Your task to perform on an android device: Go to sound settings Image 0: 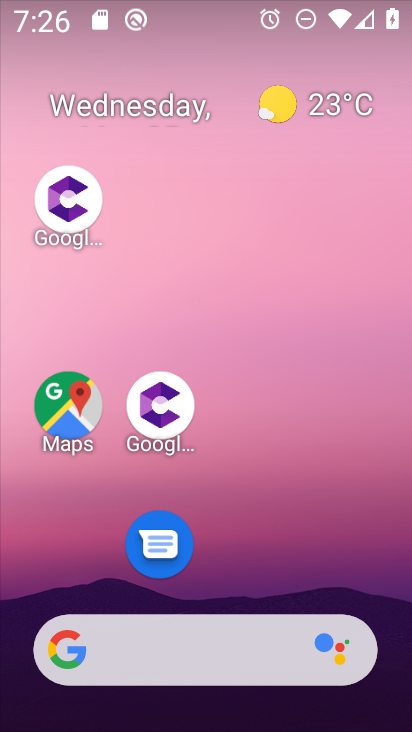
Step 0: drag from (268, 501) to (206, 114)
Your task to perform on an android device: Go to sound settings Image 1: 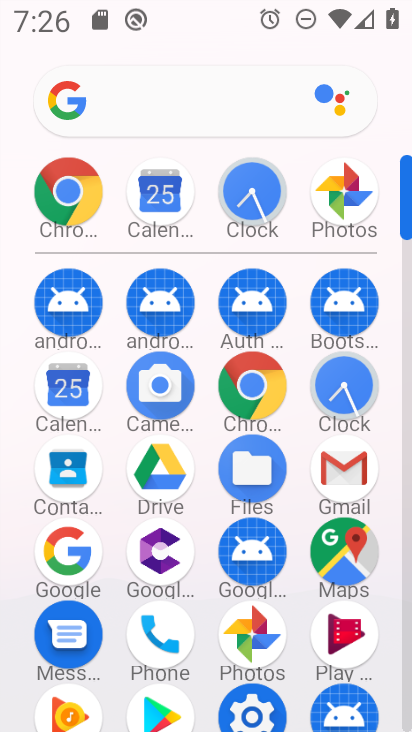
Step 1: click (248, 713)
Your task to perform on an android device: Go to sound settings Image 2: 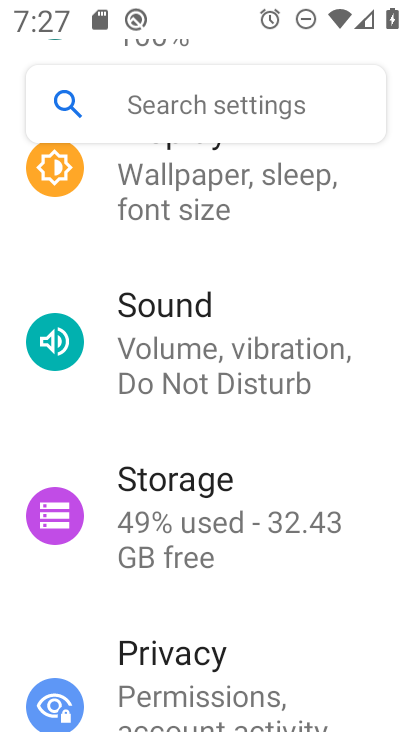
Step 2: drag from (242, 585) to (203, 175)
Your task to perform on an android device: Go to sound settings Image 3: 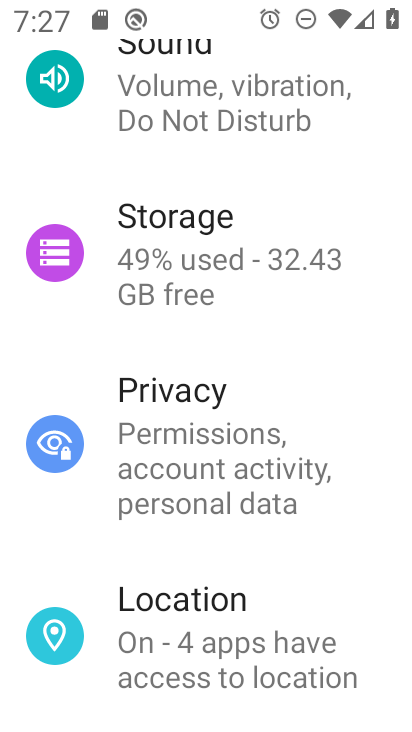
Step 3: drag from (207, 559) to (153, 189)
Your task to perform on an android device: Go to sound settings Image 4: 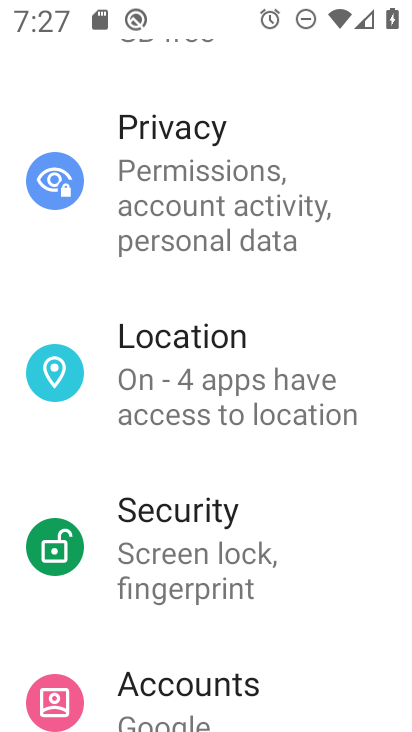
Step 4: drag from (179, 605) to (151, 312)
Your task to perform on an android device: Go to sound settings Image 5: 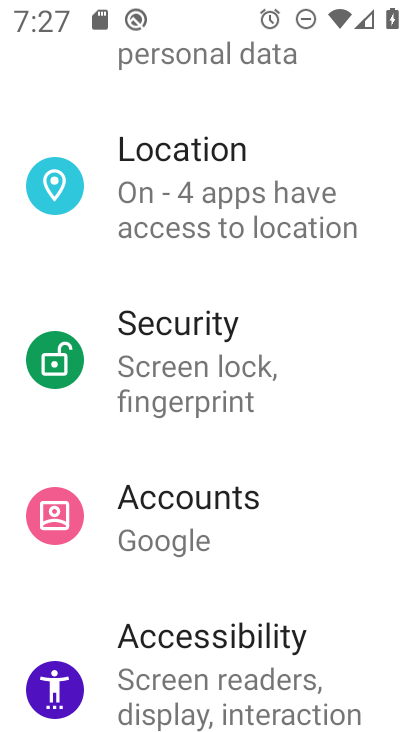
Step 5: drag from (291, 293) to (379, 724)
Your task to perform on an android device: Go to sound settings Image 6: 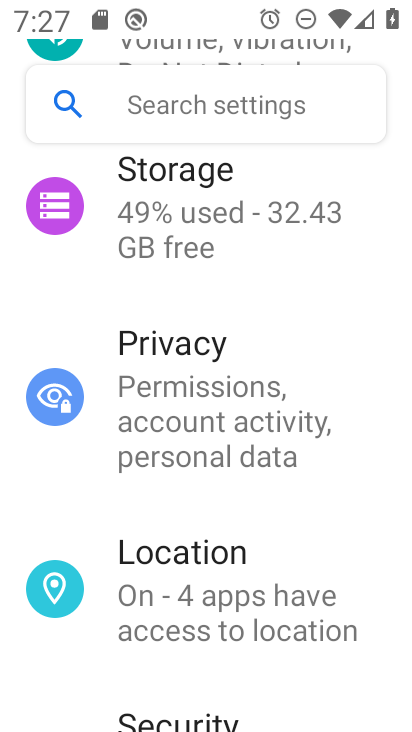
Step 6: drag from (247, 294) to (210, 724)
Your task to perform on an android device: Go to sound settings Image 7: 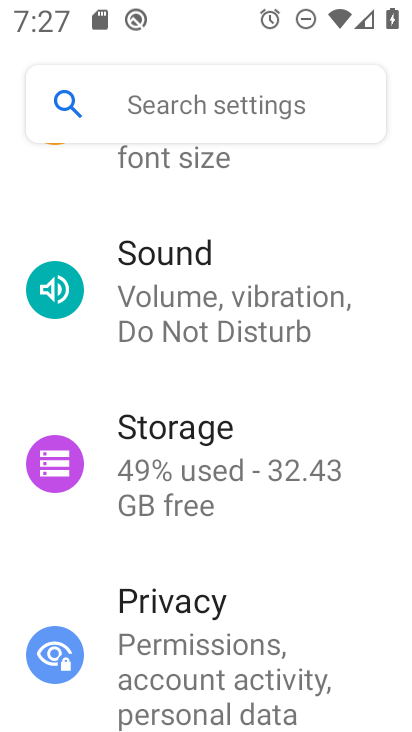
Step 7: click (168, 247)
Your task to perform on an android device: Go to sound settings Image 8: 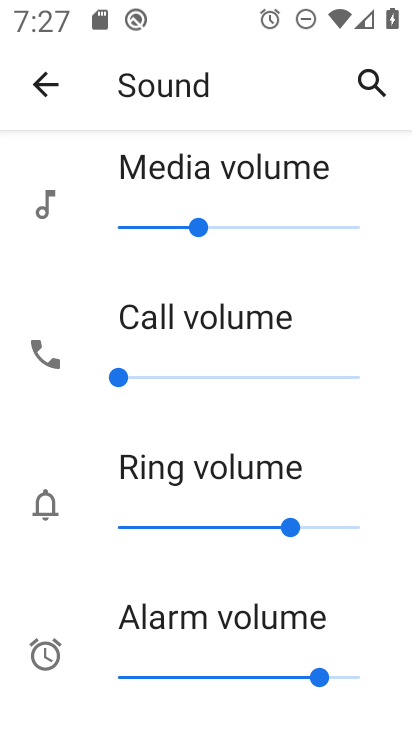
Step 8: task complete